Your task to perform on an android device: turn pop-ups on in chrome Image 0: 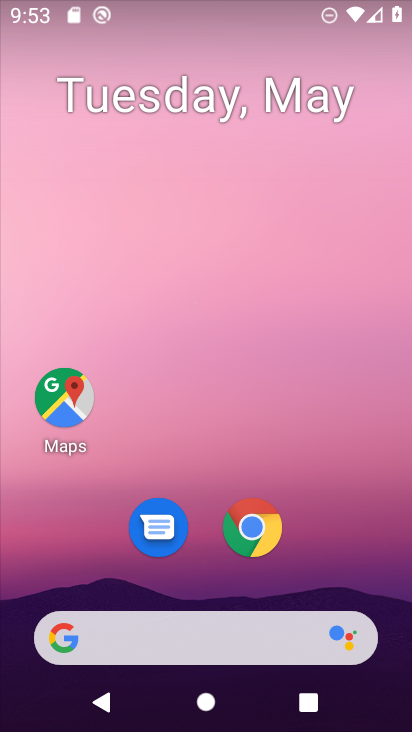
Step 0: click (249, 526)
Your task to perform on an android device: turn pop-ups on in chrome Image 1: 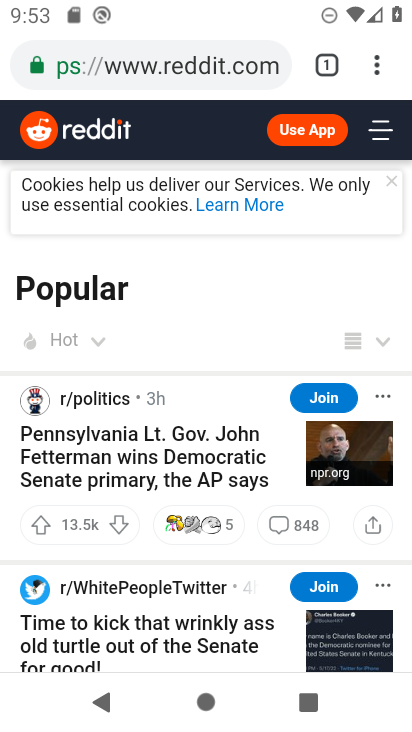
Step 1: click (377, 67)
Your task to perform on an android device: turn pop-ups on in chrome Image 2: 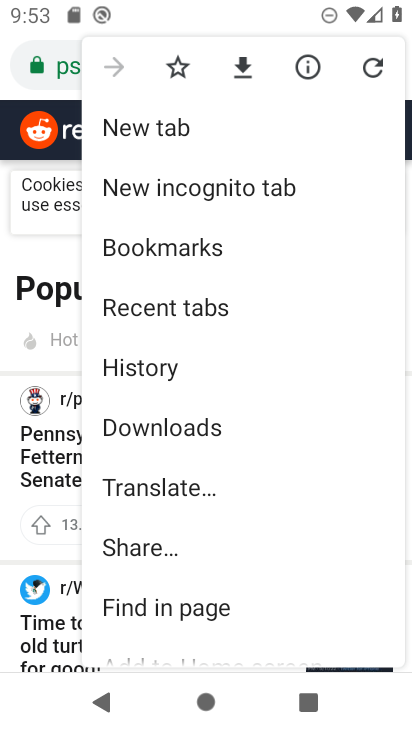
Step 2: drag from (232, 535) to (262, 455)
Your task to perform on an android device: turn pop-ups on in chrome Image 3: 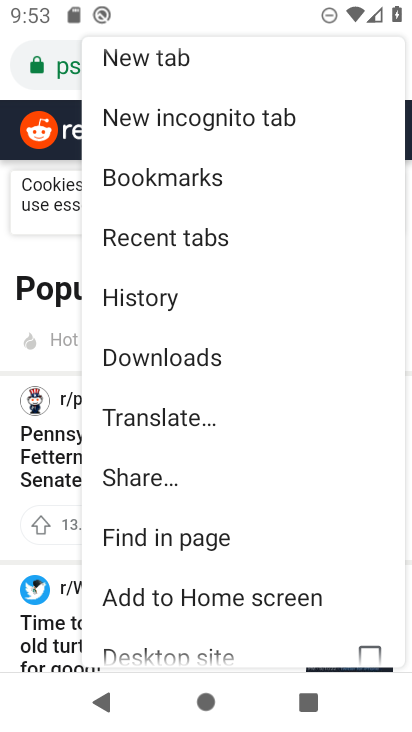
Step 3: drag from (188, 553) to (258, 469)
Your task to perform on an android device: turn pop-ups on in chrome Image 4: 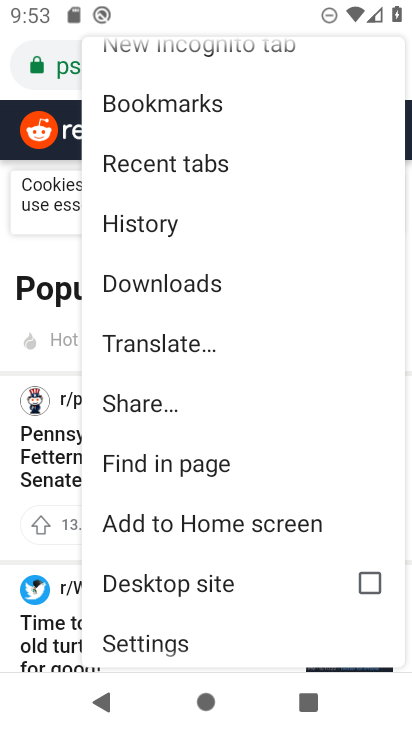
Step 4: drag from (184, 548) to (276, 433)
Your task to perform on an android device: turn pop-ups on in chrome Image 5: 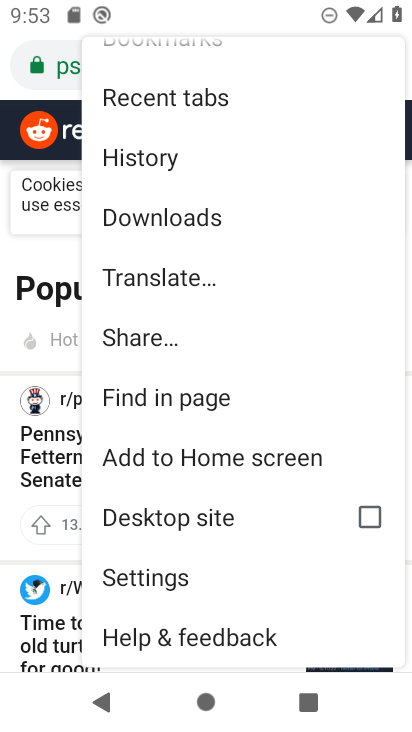
Step 5: click (130, 579)
Your task to perform on an android device: turn pop-ups on in chrome Image 6: 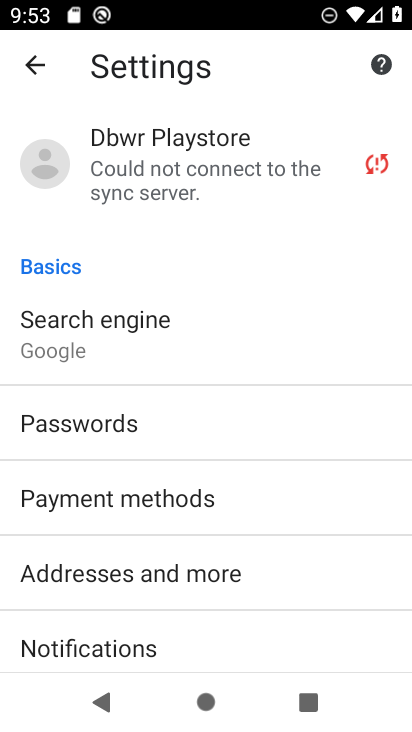
Step 6: drag from (153, 530) to (229, 437)
Your task to perform on an android device: turn pop-ups on in chrome Image 7: 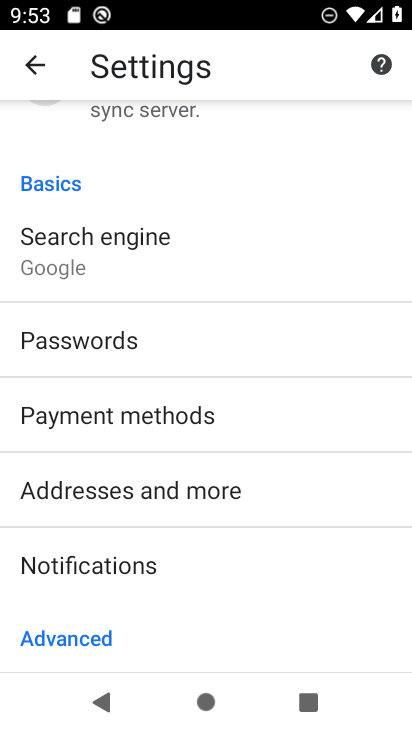
Step 7: drag from (125, 596) to (236, 472)
Your task to perform on an android device: turn pop-ups on in chrome Image 8: 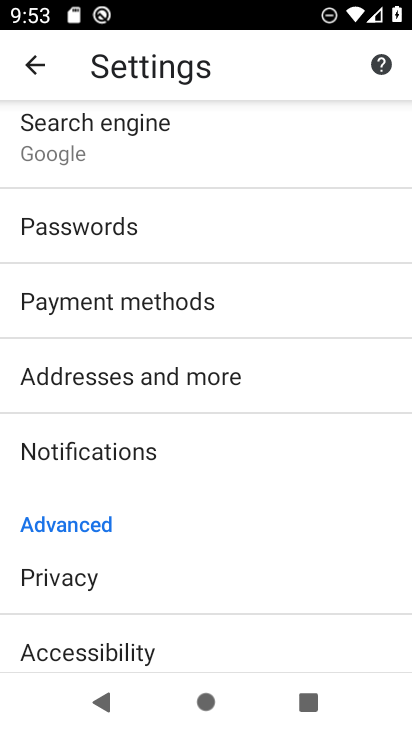
Step 8: drag from (143, 564) to (230, 467)
Your task to perform on an android device: turn pop-ups on in chrome Image 9: 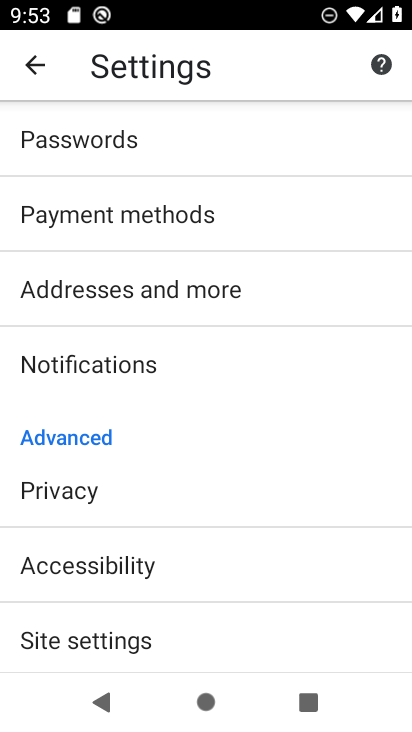
Step 9: drag from (163, 573) to (222, 504)
Your task to perform on an android device: turn pop-ups on in chrome Image 10: 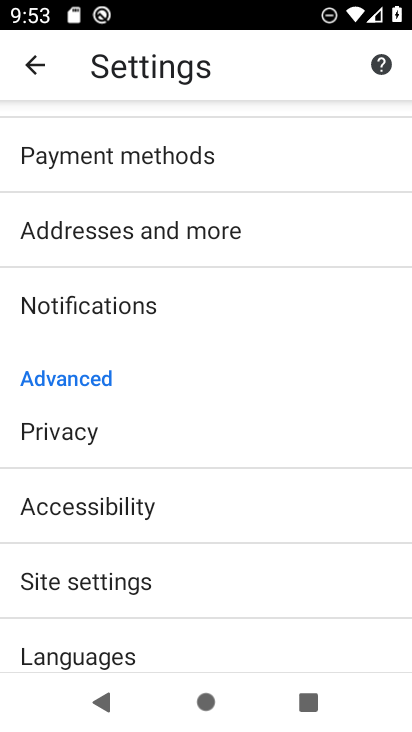
Step 10: click (143, 579)
Your task to perform on an android device: turn pop-ups on in chrome Image 11: 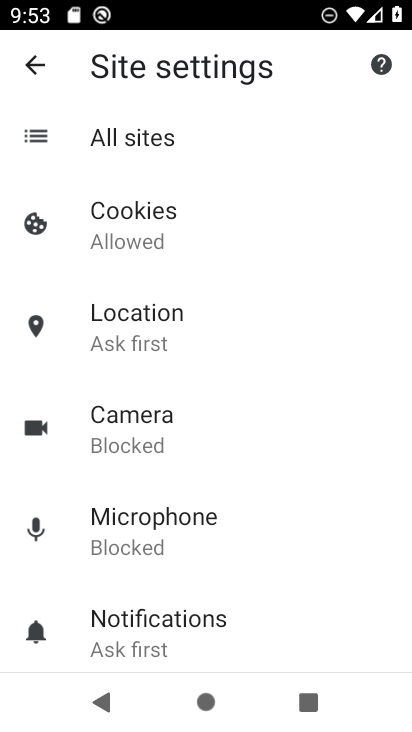
Step 11: drag from (166, 563) to (222, 467)
Your task to perform on an android device: turn pop-ups on in chrome Image 12: 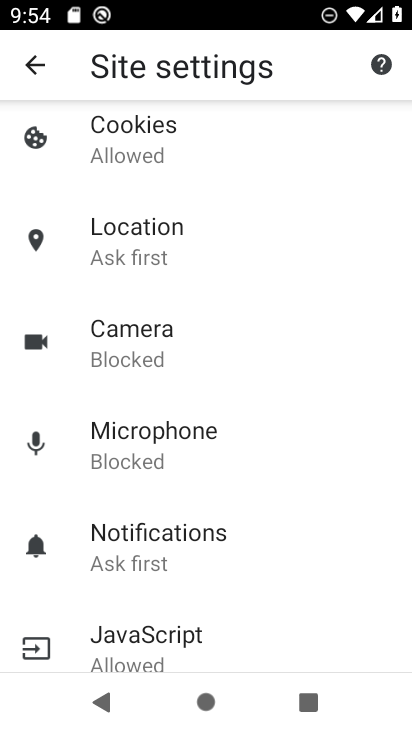
Step 12: drag from (167, 568) to (265, 459)
Your task to perform on an android device: turn pop-ups on in chrome Image 13: 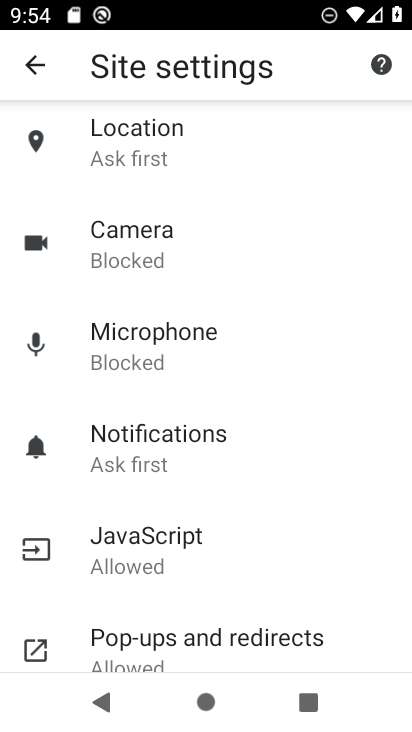
Step 13: drag from (174, 574) to (253, 477)
Your task to perform on an android device: turn pop-ups on in chrome Image 14: 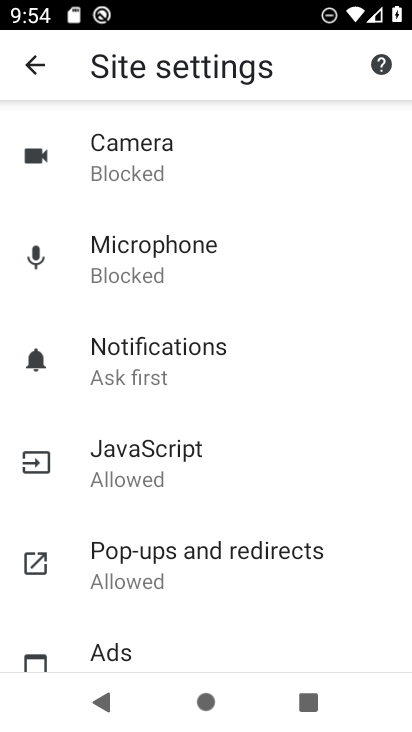
Step 14: click (175, 564)
Your task to perform on an android device: turn pop-ups on in chrome Image 15: 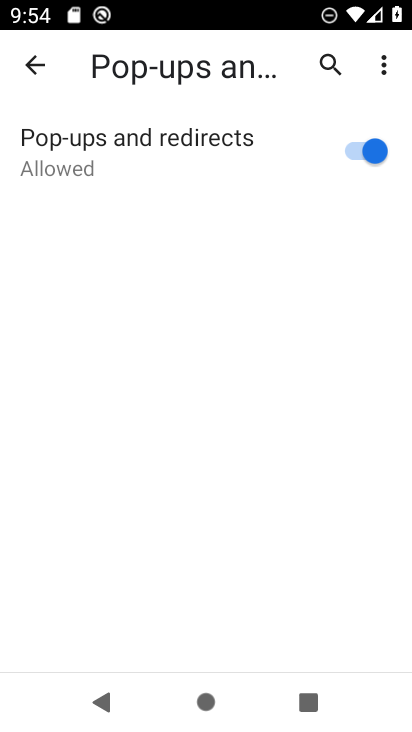
Step 15: task complete